Your task to perform on an android device: Open CNN.com Image 0: 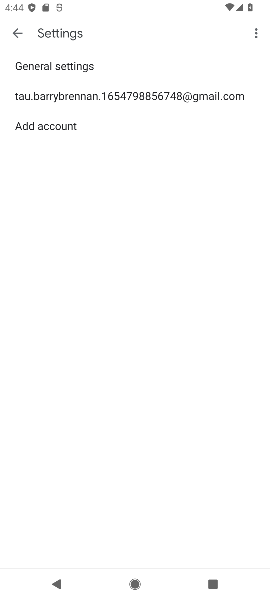
Step 0: press home button
Your task to perform on an android device: Open CNN.com Image 1: 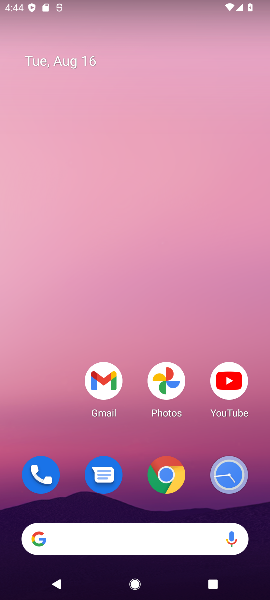
Step 1: drag from (189, 491) to (103, 2)
Your task to perform on an android device: Open CNN.com Image 2: 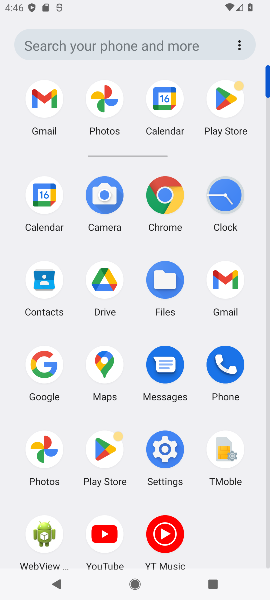
Step 2: click (32, 370)
Your task to perform on an android device: Open CNN.com Image 3: 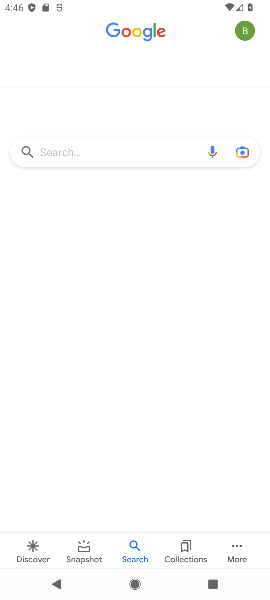
Step 3: click (105, 151)
Your task to perform on an android device: Open CNN.com Image 4: 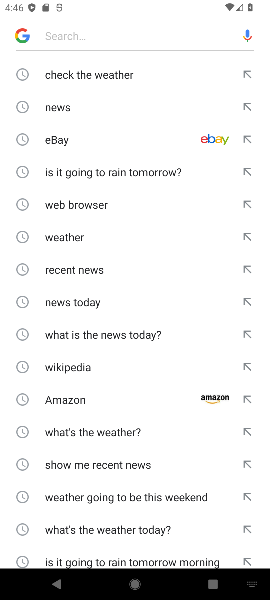
Step 4: type "CNN.com"
Your task to perform on an android device: Open CNN.com Image 5: 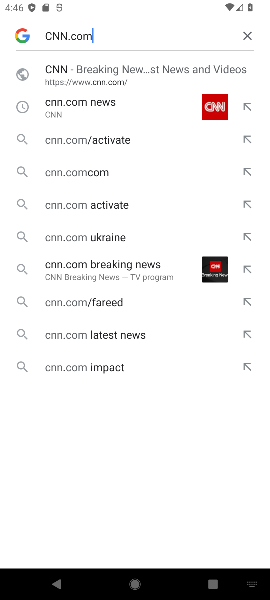
Step 5: click (97, 77)
Your task to perform on an android device: Open CNN.com Image 6: 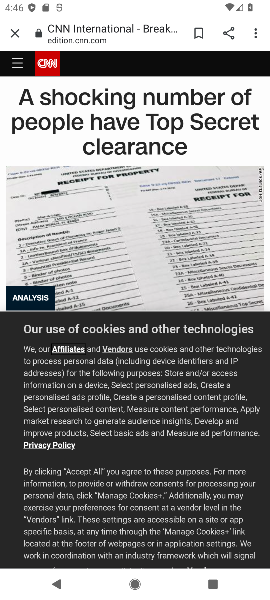
Step 6: task complete